Your task to perform on an android device: toggle notifications settings in the gmail app Image 0: 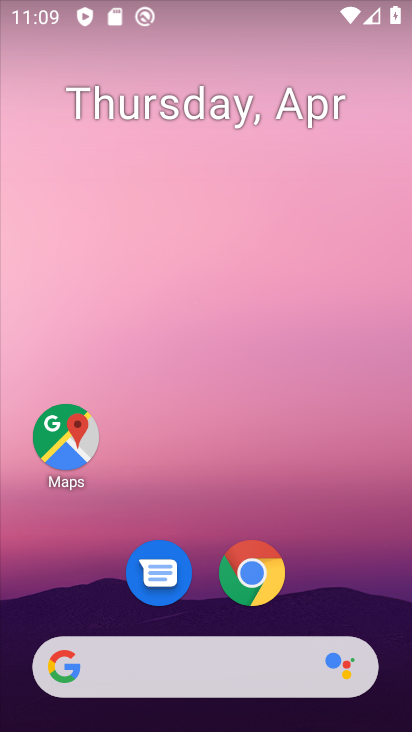
Step 0: drag from (294, 520) to (303, 123)
Your task to perform on an android device: toggle notifications settings in the gmail app Image 1: 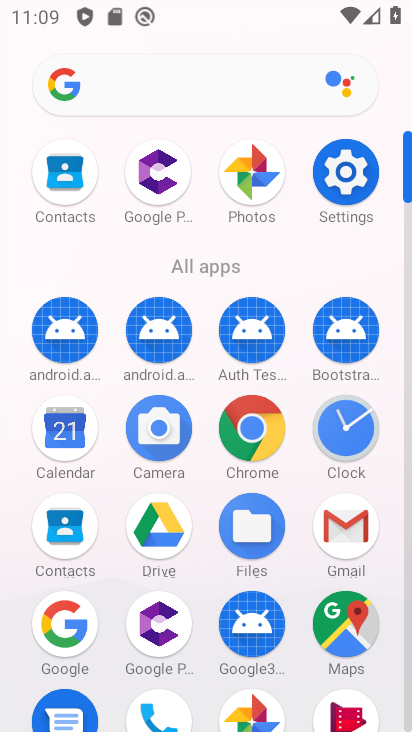
Step 1: click (355, 542)
Your task to perform on an android device: toggle notifications settings in the gmail app Image 2: 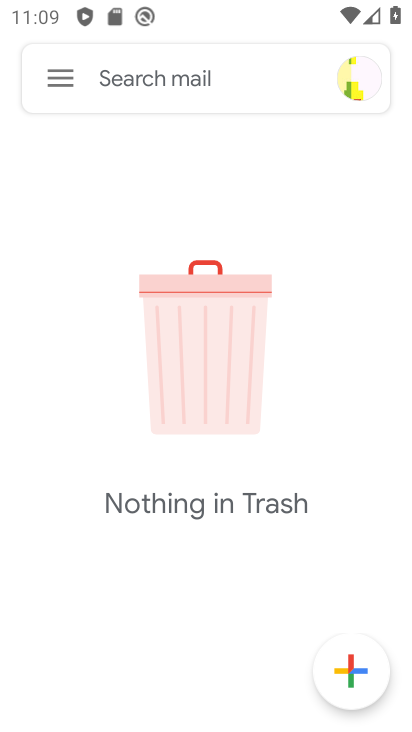
Step 2: click (62, 74)
Your task to perform on an android device: toggle notifications settings in the gmail app Image 3: 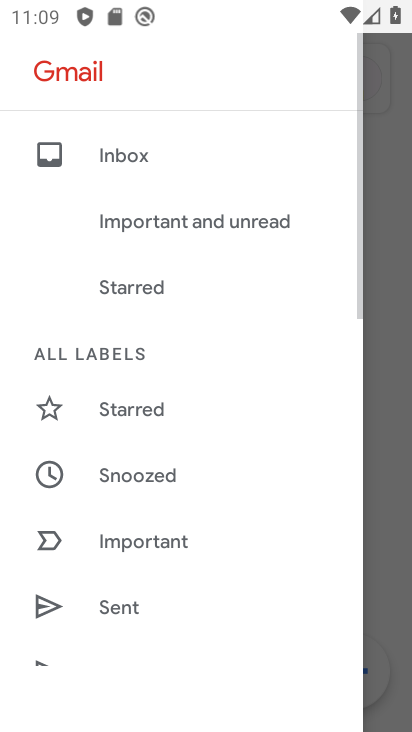
Step 3: drag from (204, 573) to (231, 177)
Your task to perform on an android device: toggle notifications settings in the gmail app Image 4: 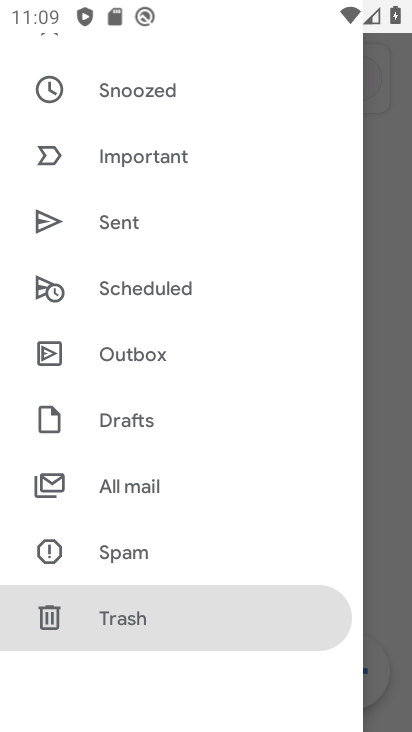
Step 4: drag from (269, 558) to (268, 137)
Your task to perform on an android device: toggle notifications settings in the gmail app Image 5: 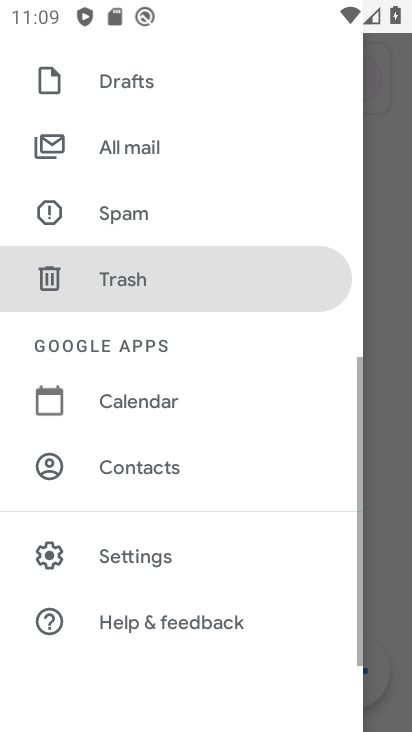
Step 5: click (175, 552)
Your task to perform on an android device: toggle notifications settings in the gmail app Image 6: 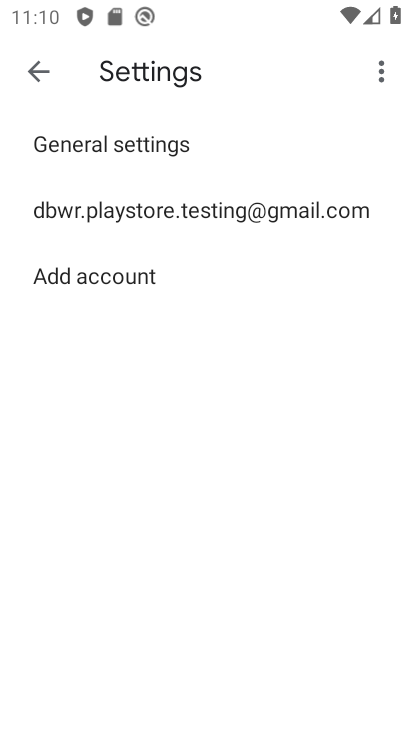
Step 6: click (173, 141)
Your task to perform on an android device: toggle notifications settings in the gmail app Image 7: 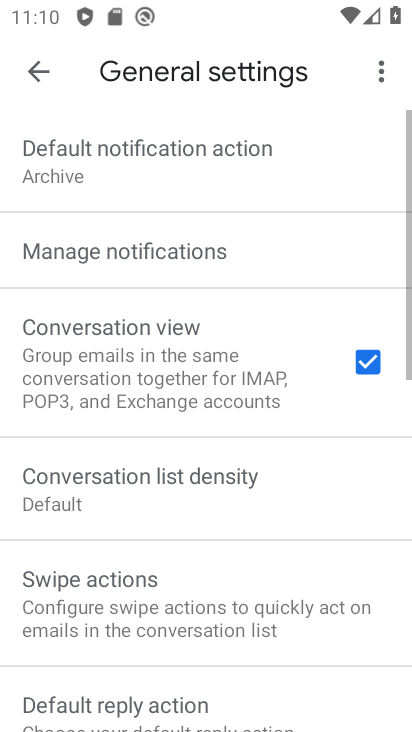
Step 7: click (200, 256)
Your task to perform on an android device: toggle notifications settings in the gmail app Image 8: 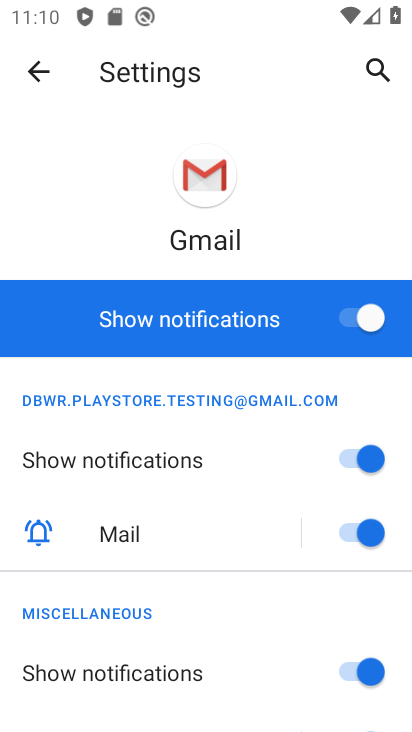
Step 8: click (353, 320)
Your task to perform on an android device: toggle notifications settings in the gmail app Image 9: 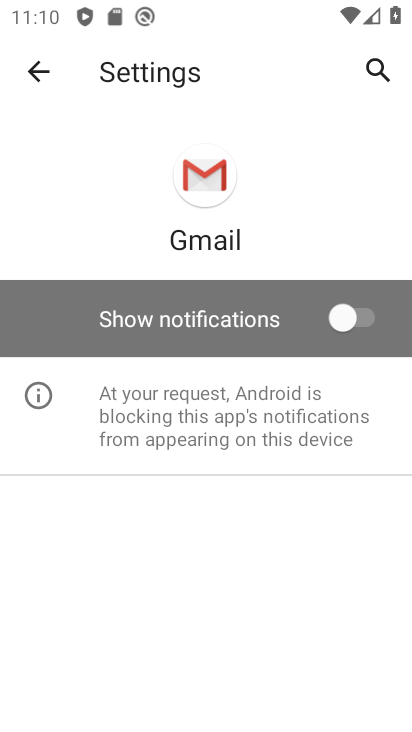
Step 9: task complete